Your task to perform on an android device: toggle translation in the chrome app Image 0: 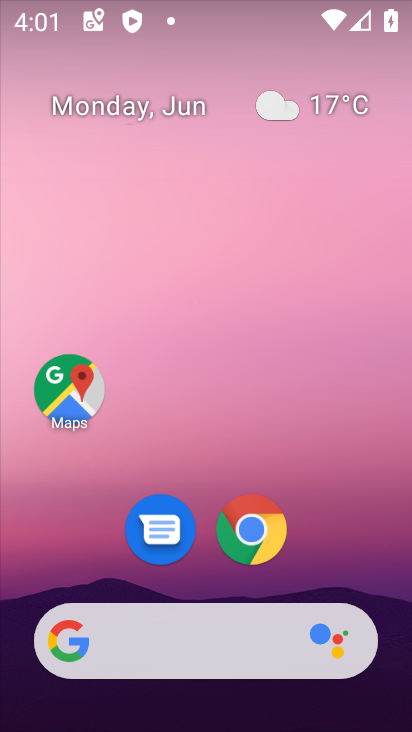
Step 0: click (249, 527)
Your task to perform on an android device: toggle translation in the chrome app Image 1: 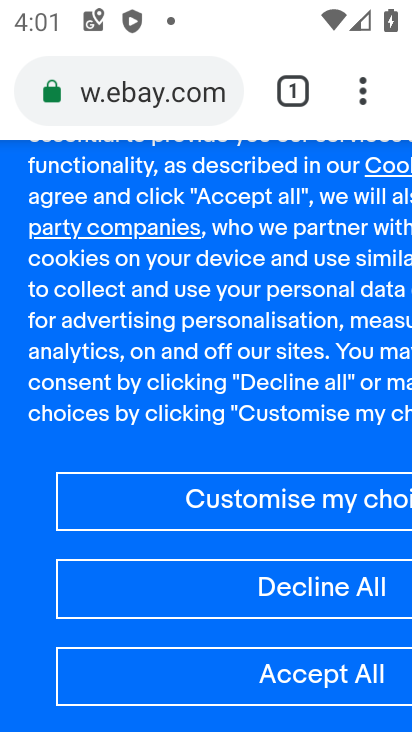
Step 1: click (361, 92)
Your task to perform on an android device: toggle translation in the chrome app Image 2: 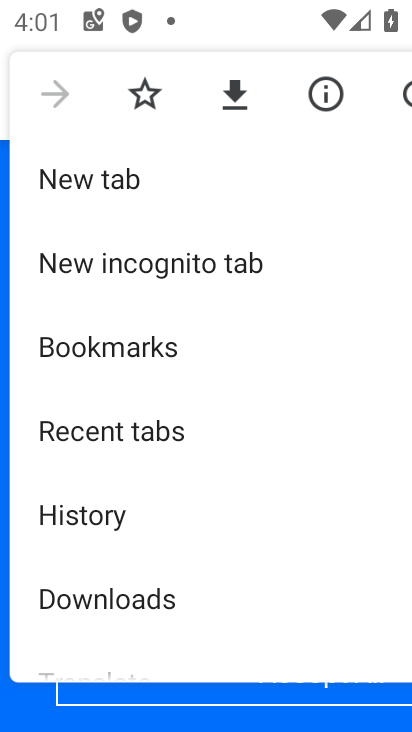
Step 2: drag from (168, 558) to (216, 362)
Your task to perform on an android device: toggle translation in the chrome app Image 3: 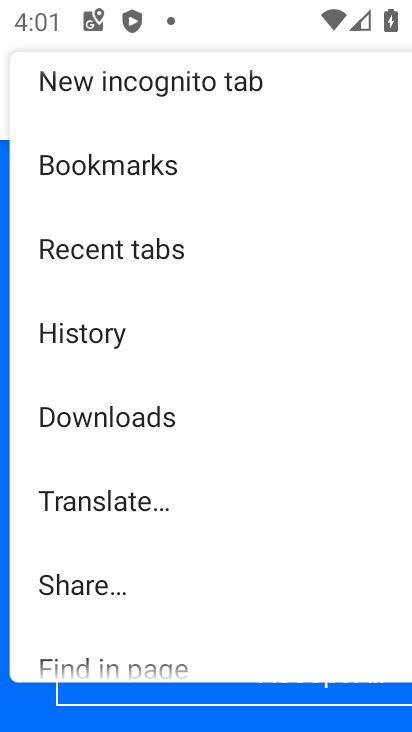
Step 3: drag from (188, 550) to (285, 335)
Your task to perform on an android device: toggle translation in the chrome app Image 4: 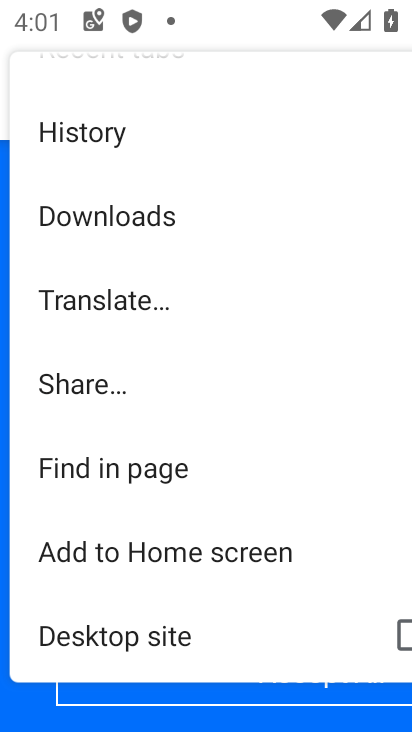
Step 4: drag from (159, 578) to (273, 383)
Your task to perform on an android device: toggle translation in the chrome app Image 5: 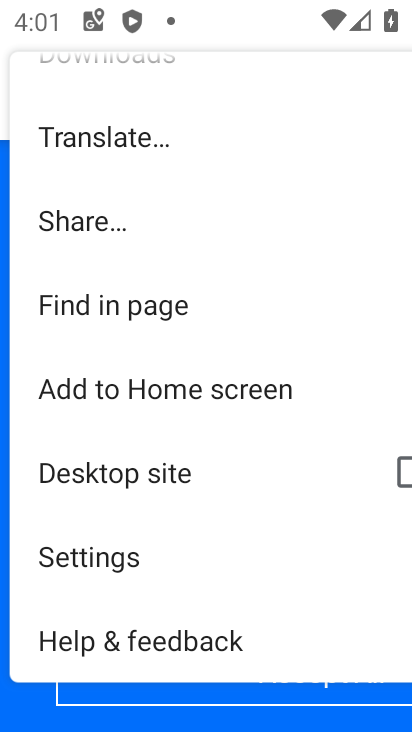
Step 5: click (117, 557)
Your task to perform on an android device: toggle translation in the chrome app Image 6: 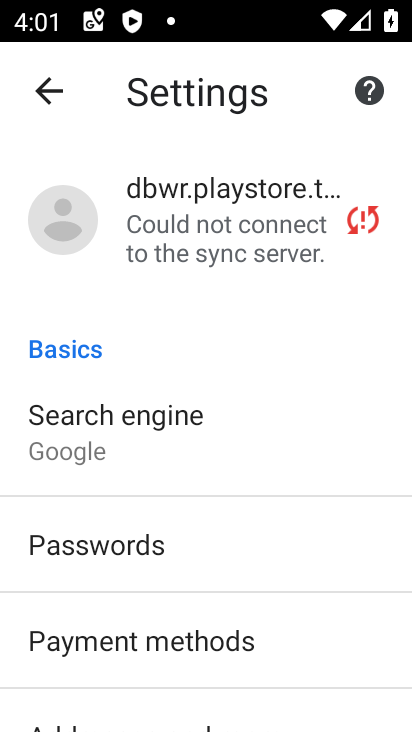
Step 6: drag from (172, 591) to (280, 309)
Your task to perform on an android device: toggle translation in the chrome app Image 7: 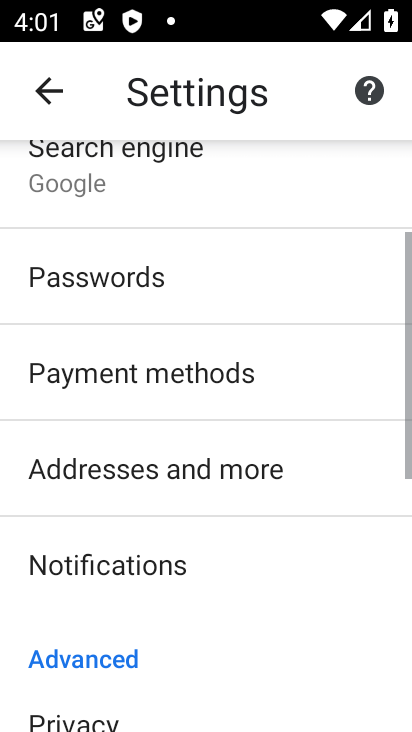
Step 7: drag from (171, 640) to (312, 329)
Your task to perform on an android device: toggle translation in the chrome app Image 8: 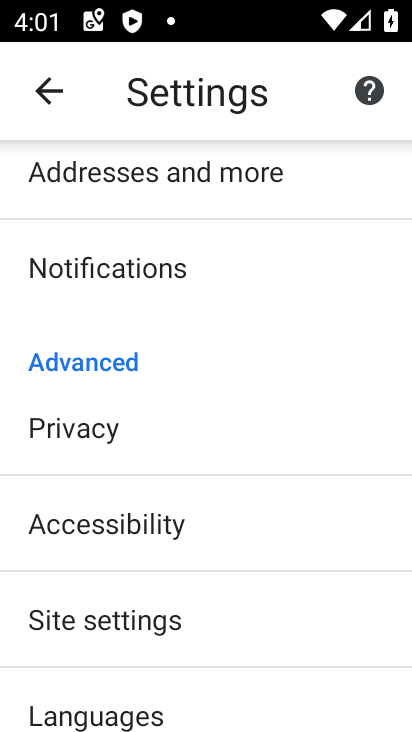
Step 8: drag from (156, 648) to (254, 435)
Your task to perform on an android device: toggle translation in the chrome app Image 9: 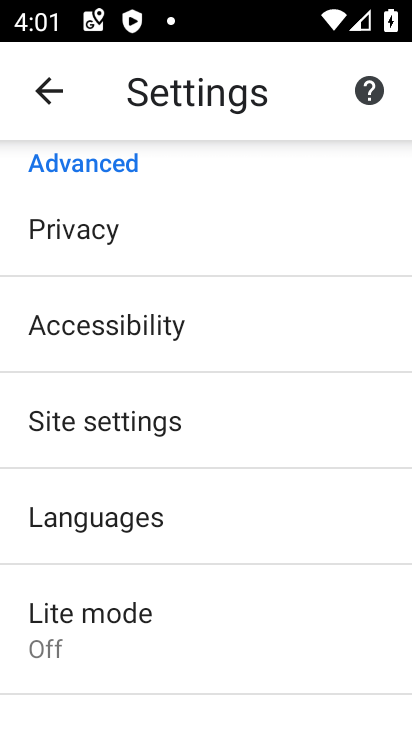
Step 9: click (134, 534)
Your task to perform on an android device: toggle translation in the chrome app Image 10: 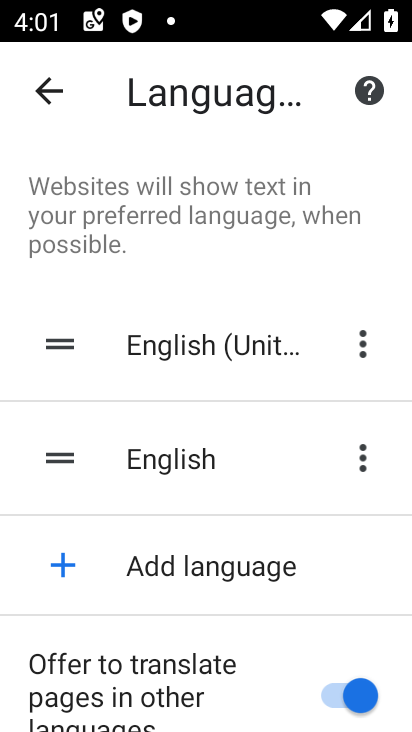
Step 10: click (347, 702)
Your task to perform on an android device: toggle translation in the chrome app Image 11: 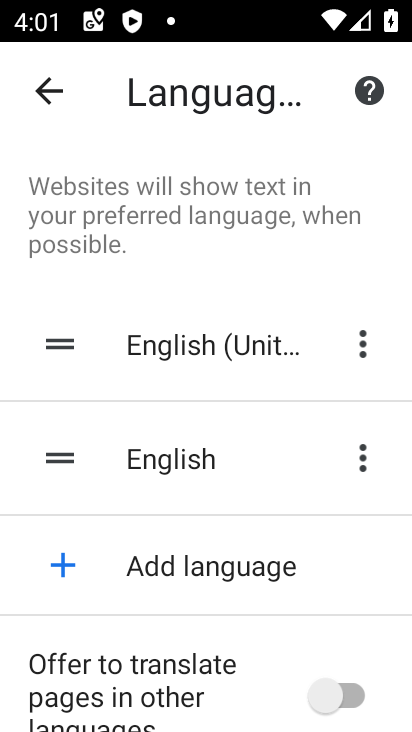
Step 11: task complete